Your task to perform on an android device: see tabs open on other devices in the chrome app Image 0: 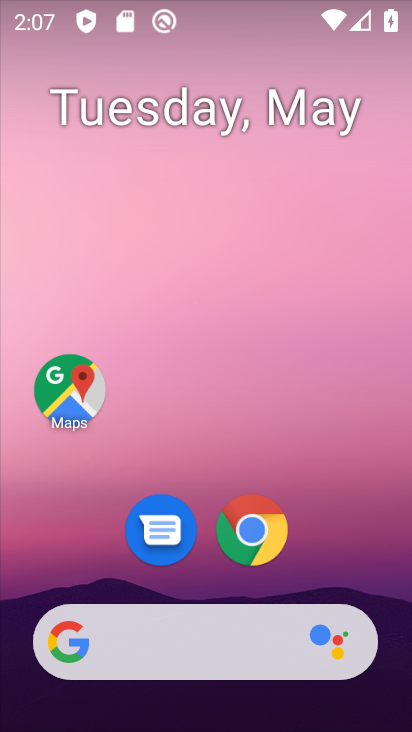
Step 0: drag from (236, 599) to (224, 2)
Your task to perform on an android device: see tabs open on other devices in the chrome app Image 1: 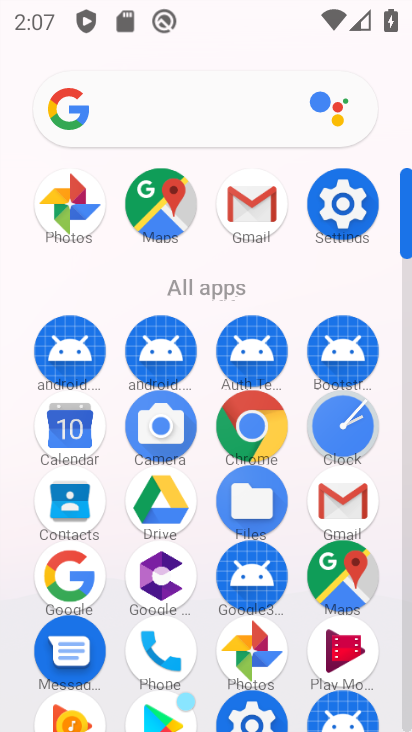
Step 1: click (270, 419)
Your task to perform on an android device: see tabs open on other devices in the chrome app Image 2: 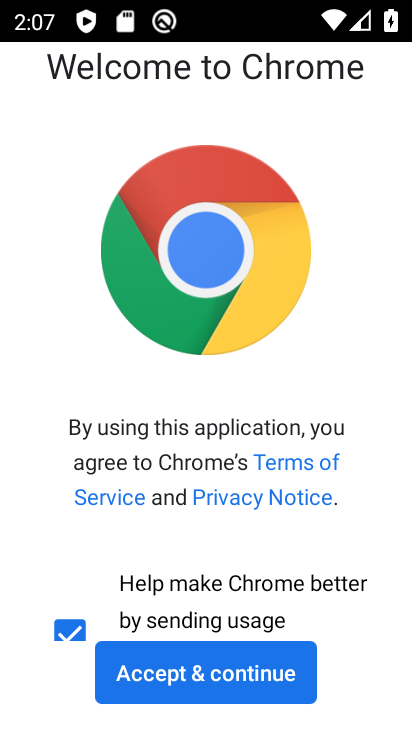
Step 2: click (251, 672)
Your task to perform on an android device: see tabs open on other devices in the chrome app Image 3: 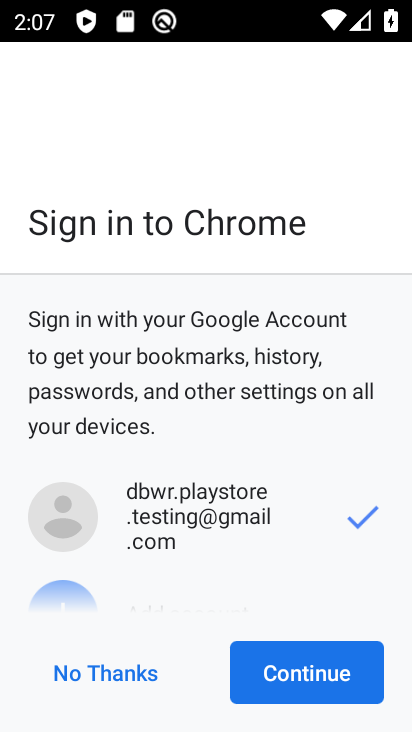
Step 3: click (253, 663)
Your task to perform on an android device: see tabs open on other devices in the chrome app Image 4: 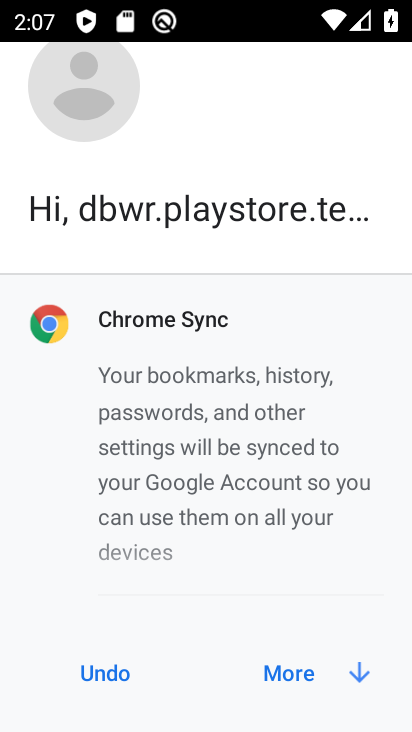
Step 4: click (279, 665)
Your task to perform on an android device: see tabs open on other devices in the chrome app Image 5: 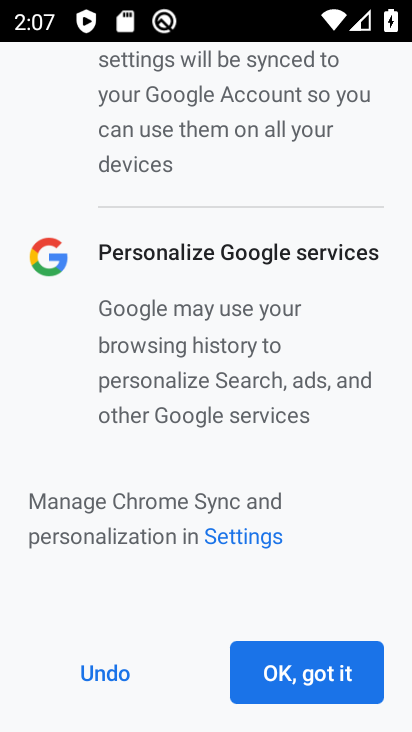
Step 5: click (293, 668)
Your task to perform on an android device: see tabs open on other devices in the chrome app Image 6: 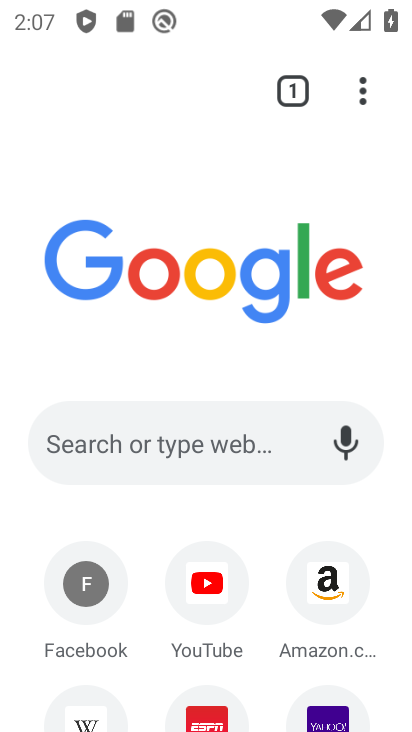
Step 6: click (373, 89)
Your task to perform on an android device: see tabs open on other devices in the chrome app Image 7: 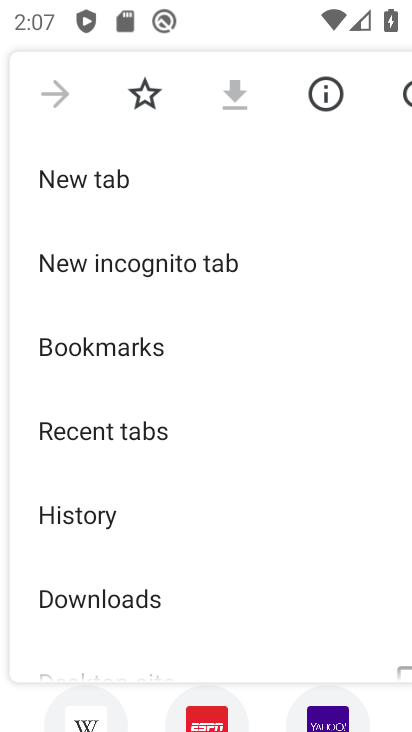
Step 7: press back button
Your task to perform on an android device: see tabs open on other devices in the chrome app Image 8: 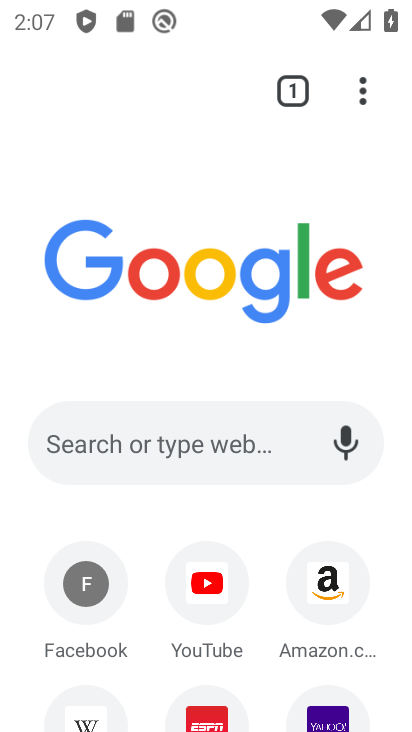
Step 8: click (285, 98)
Your task to perform on an android device: see tabs open on other devices in the chrome app Image 9: 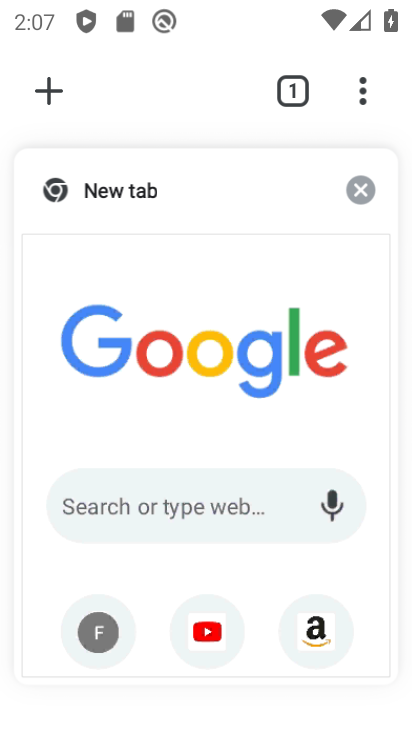
Step 9: task complete